Your task to perform on an android device: Go to Google maps Image 0: 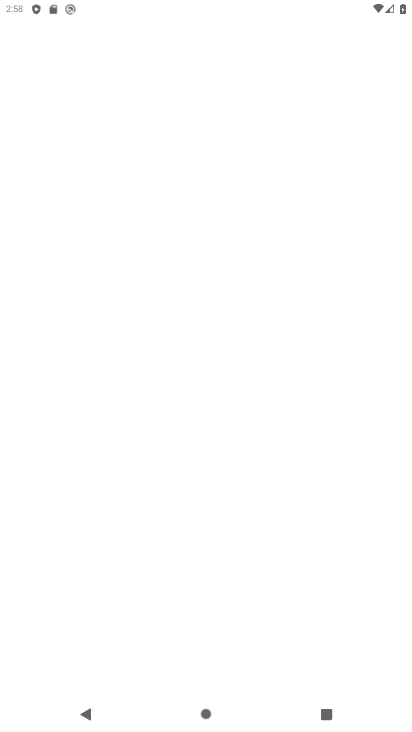
Step 0: click (213, 654)
Your task to perform on an android device: Go to Google maps Image 1: 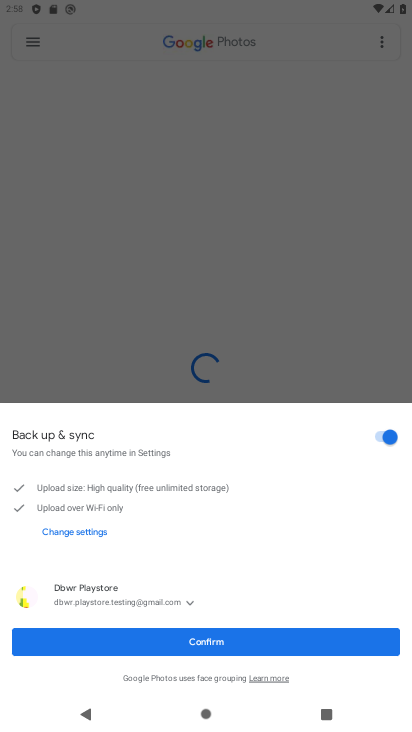
Step 1: press home button
Your task to perform on an android device: Go to Google maps Image 2: 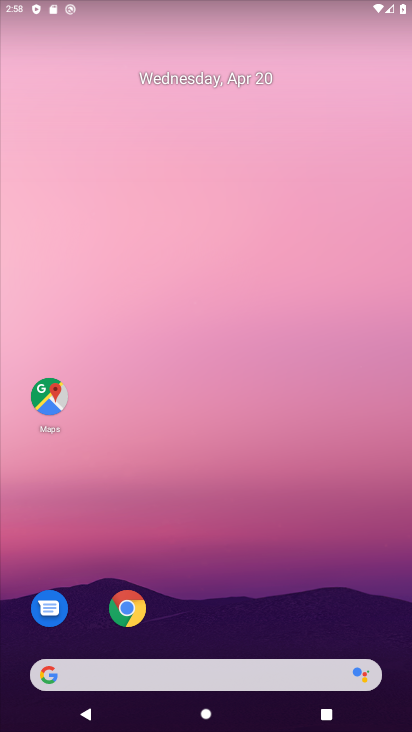
Step 2: click (43, 393)
Your task to perform on an android device: Go to Google maps Image 3: 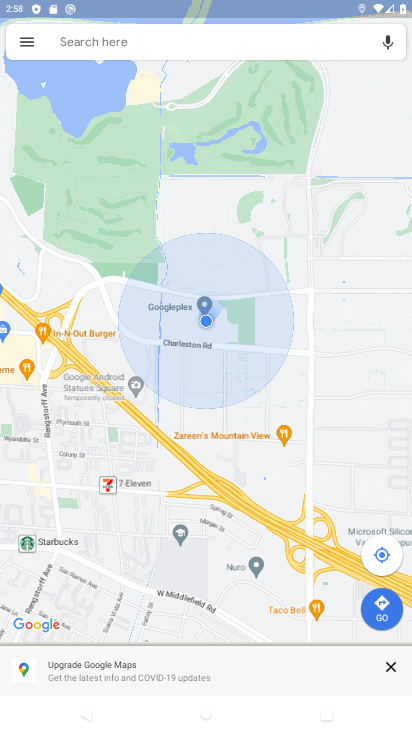
Step 3: task complete